Your task to perform on an android device: delete the emails in spam in the gmail app Image 0: 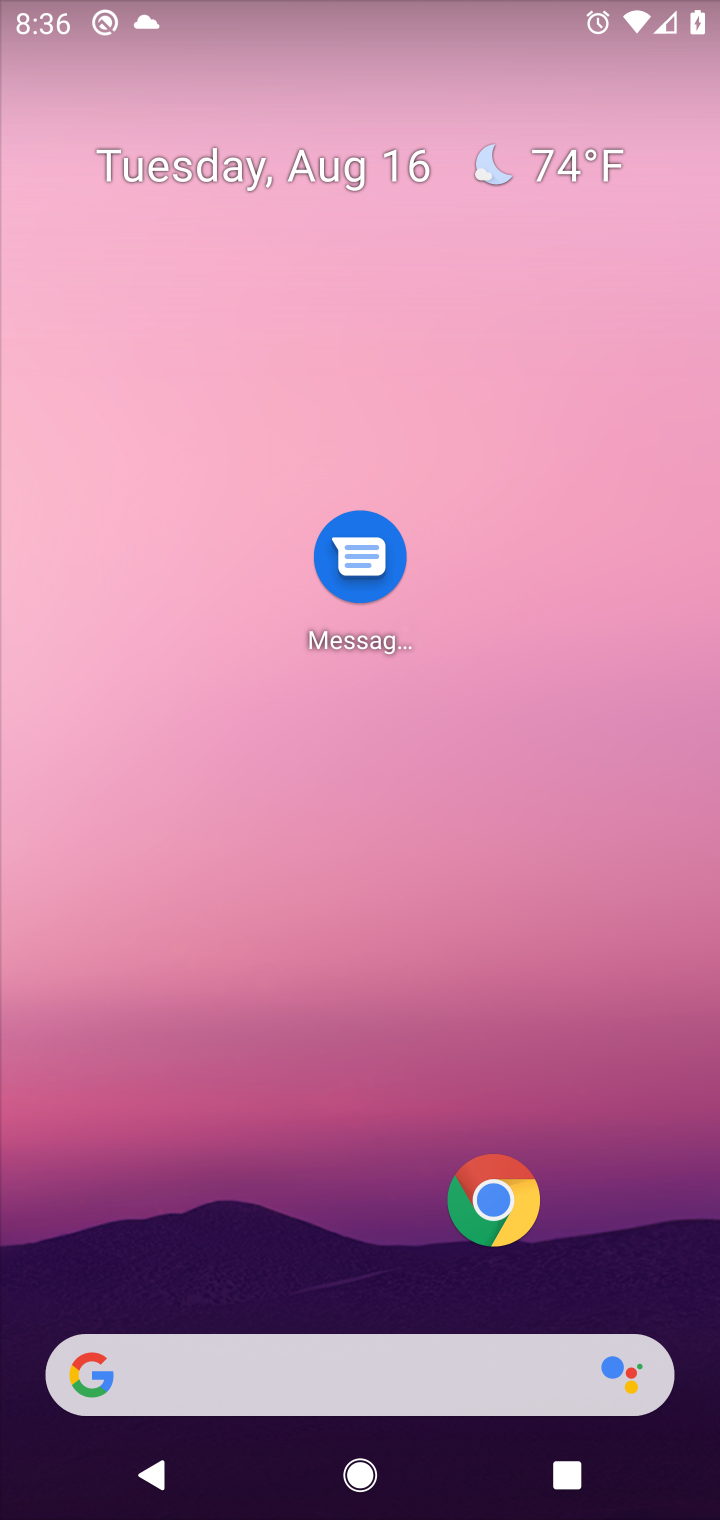
Step 0: drag from (70, 1431) to (599, 315)
Your task to perform on an android device: delete the emails in spam in the gmail app Image 1: 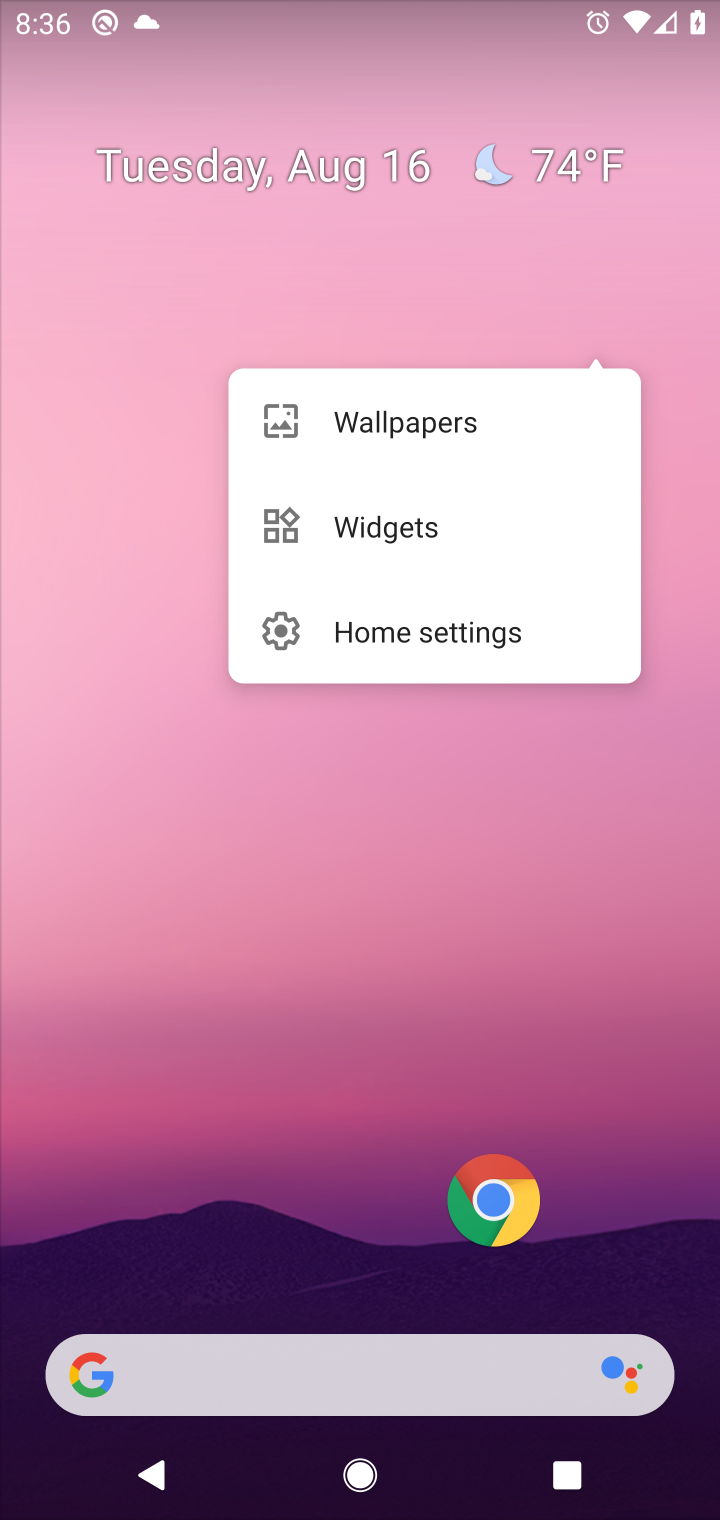
Step 1: drag from (43, 1482) to (186, 414)
Your task to perform on an android device: delete the emails in spam in the gmail app Image 2: 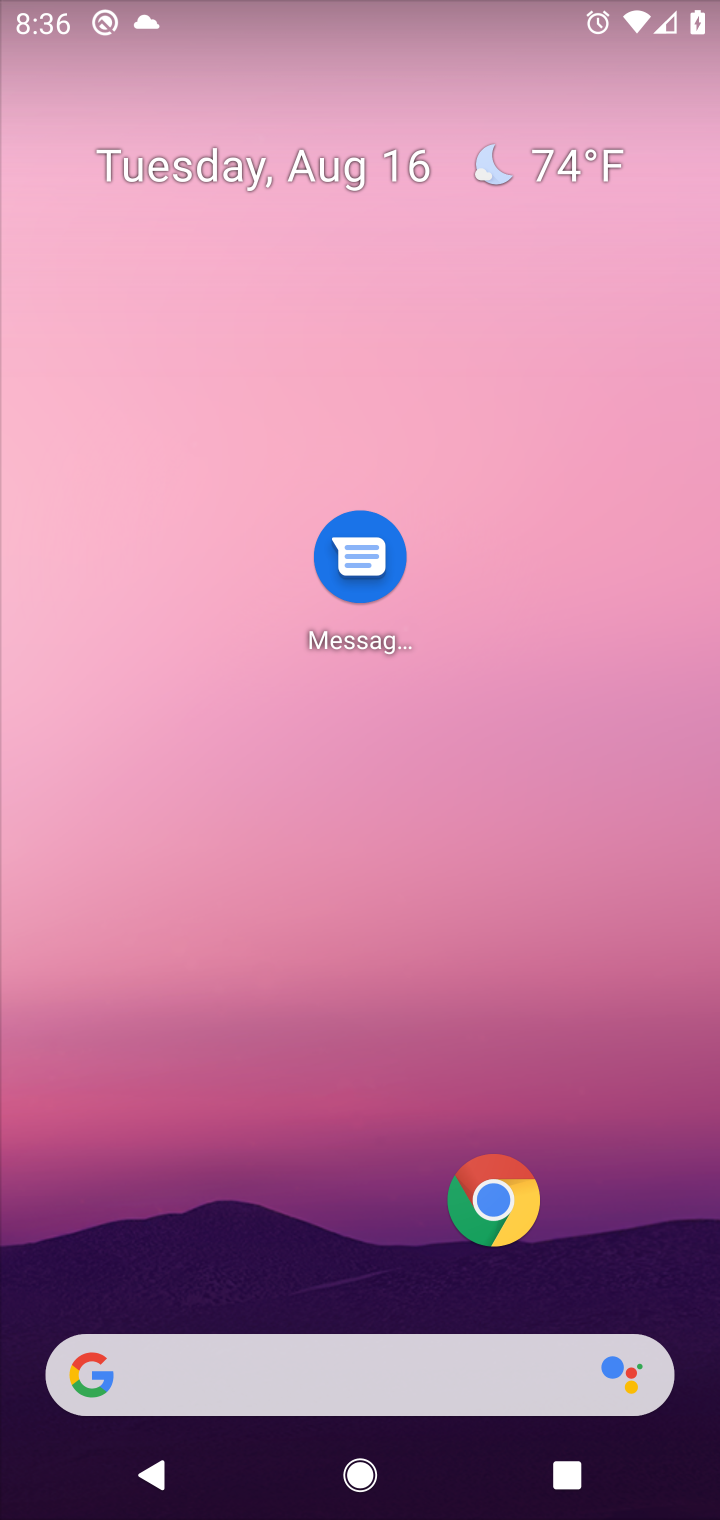
Step 2: drag from (78, 1452) to (262, 373)
Your task to perform on an android device: delete the emails in spam in the gmail app Image 3: 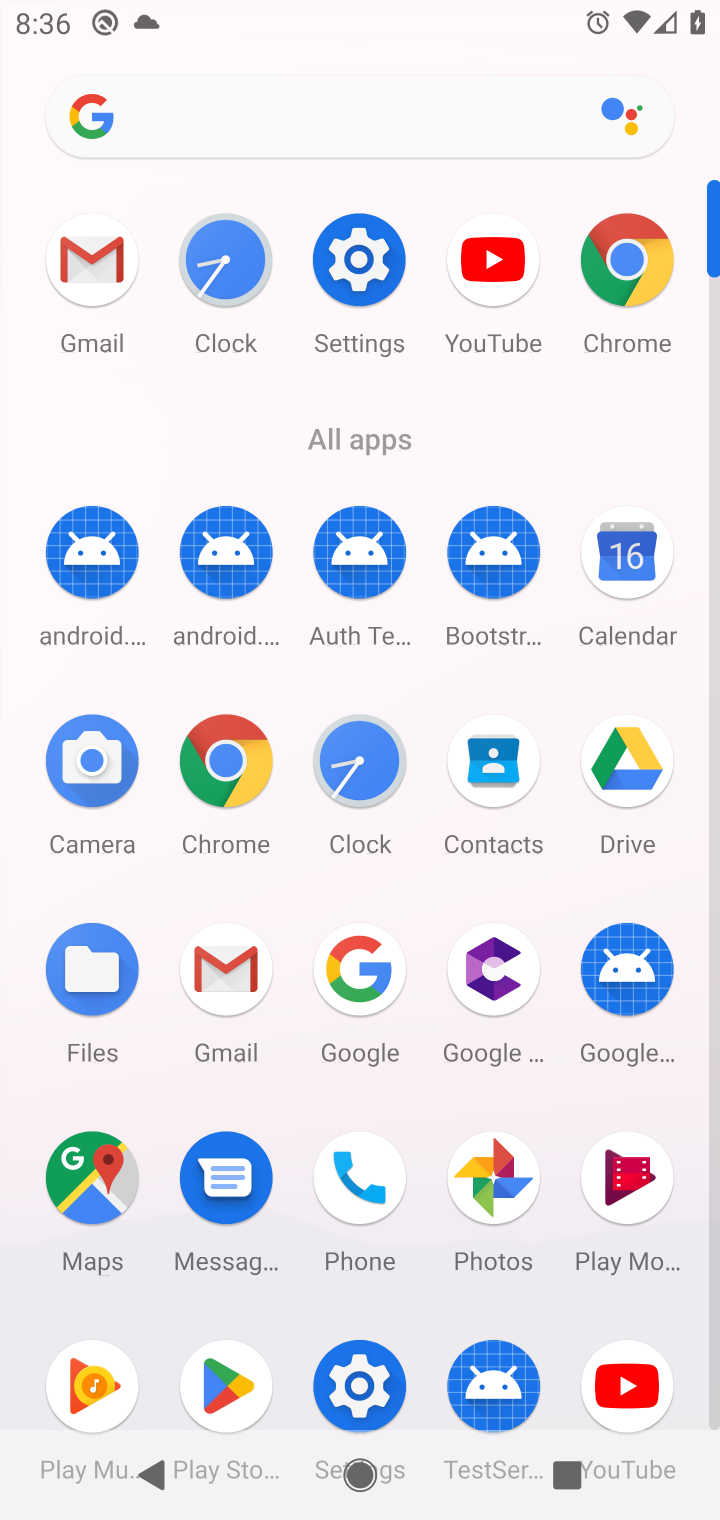
Step 3: click (224, 946)
Your task to perform on an android device: delete the emails in spam in the gmail app Image 4: 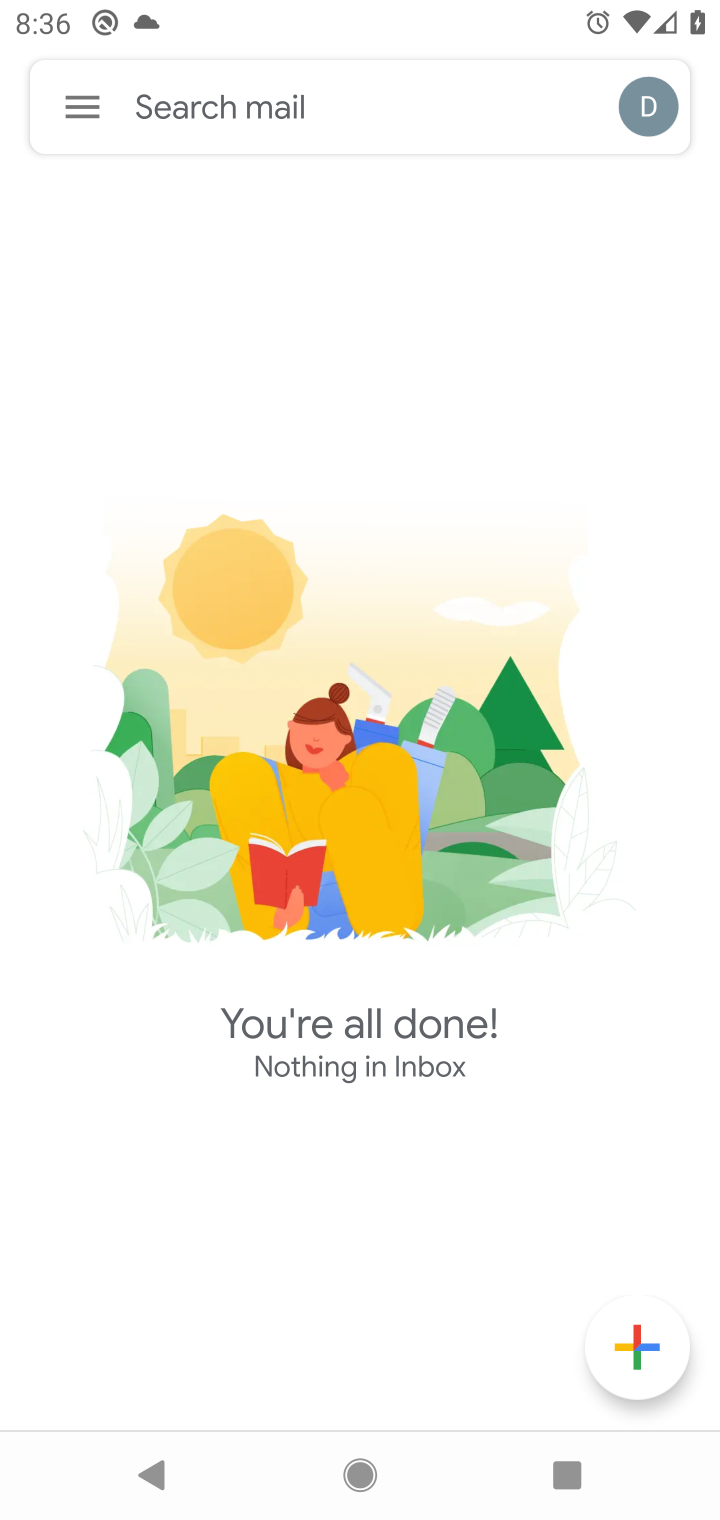
Step 4: click (75, 126)
Your task to perform on an android device: delete the emails in spam in the gmail app Image 5: 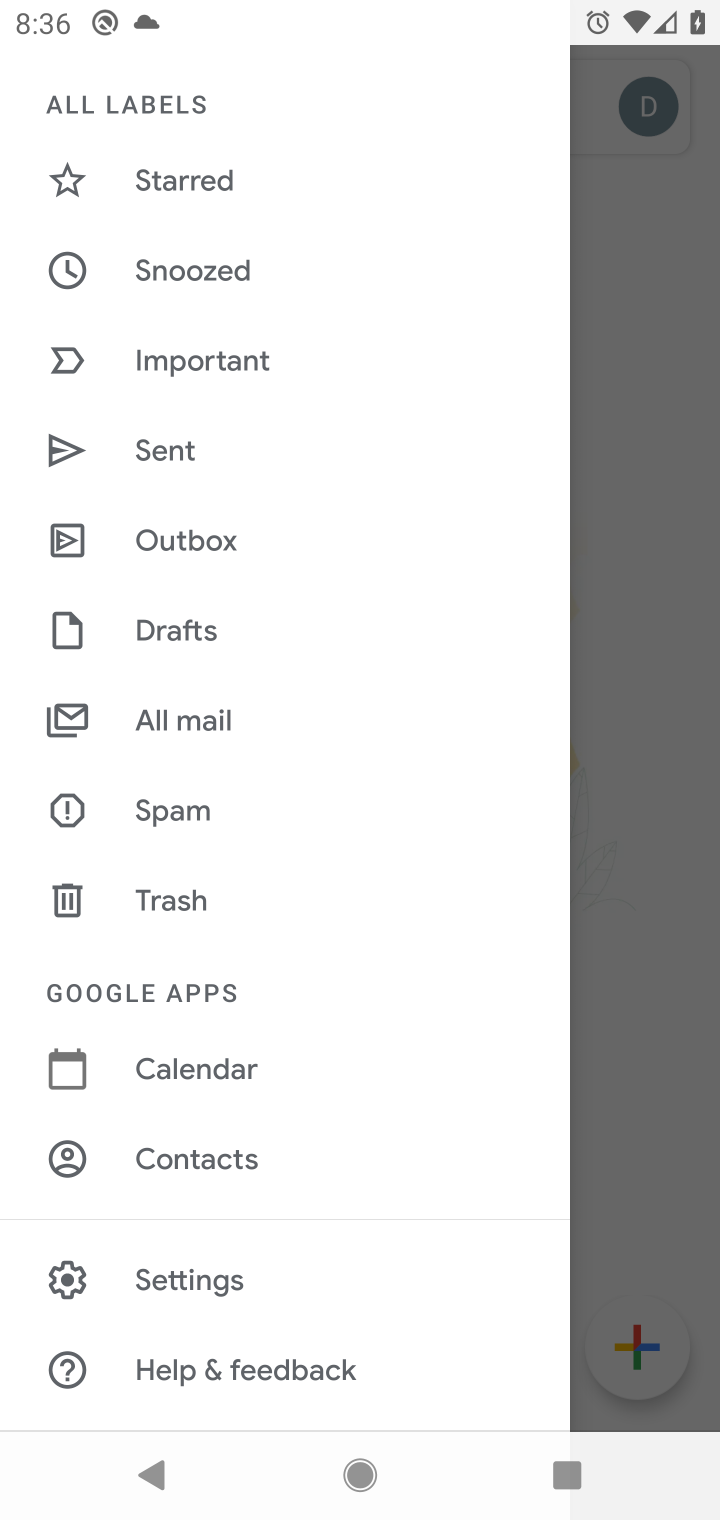
Step 5: click (170, 811)
Your task to perform on an android device: delete the emails in spam in the gmail app Image 6: 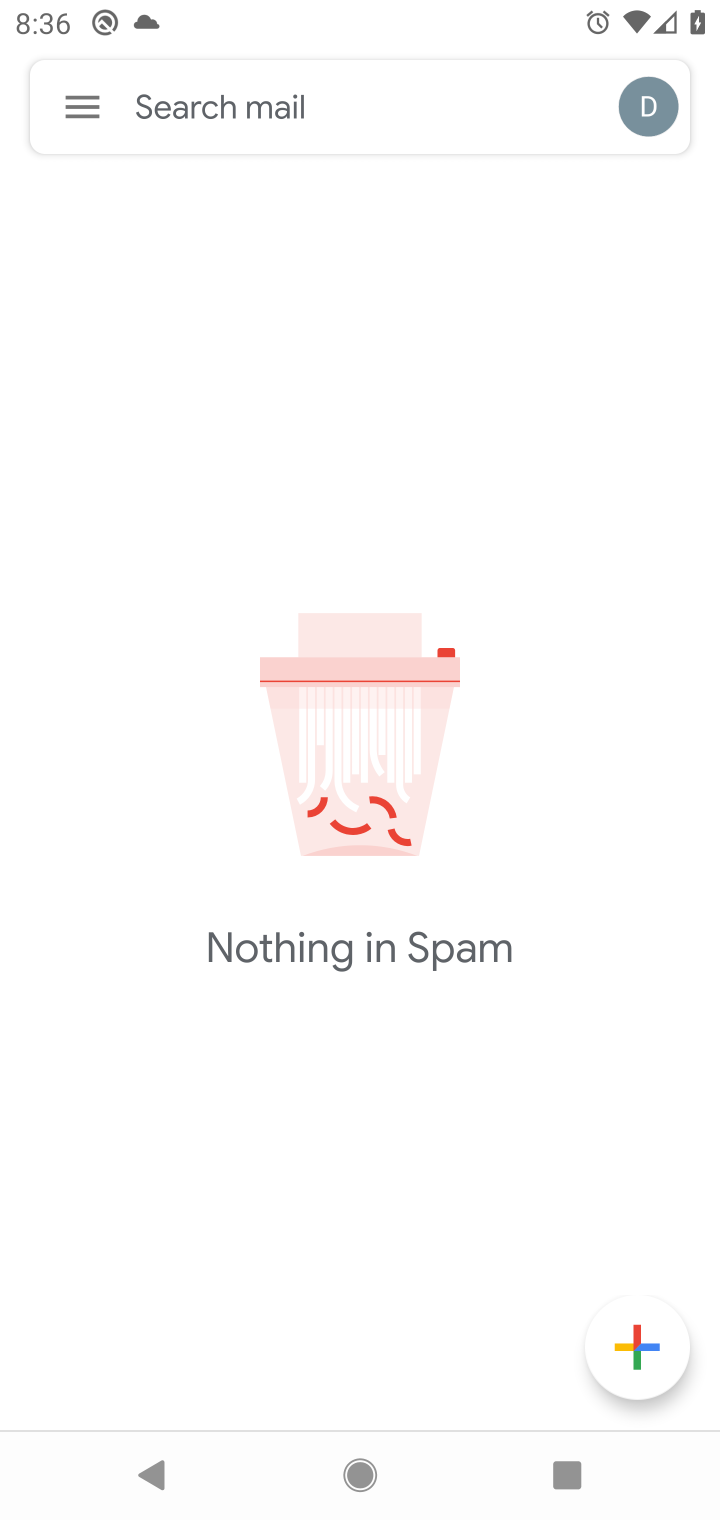
Step 6: task complete